Your task to perform on an android device: toggle location history Image 0: 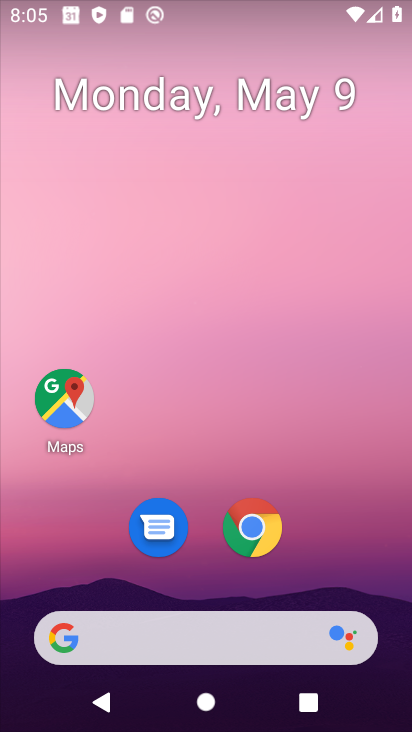
Step 0: drag from (208, 583) to (217, 101)
Your task to perform on an android device: toggle location history Image 1: 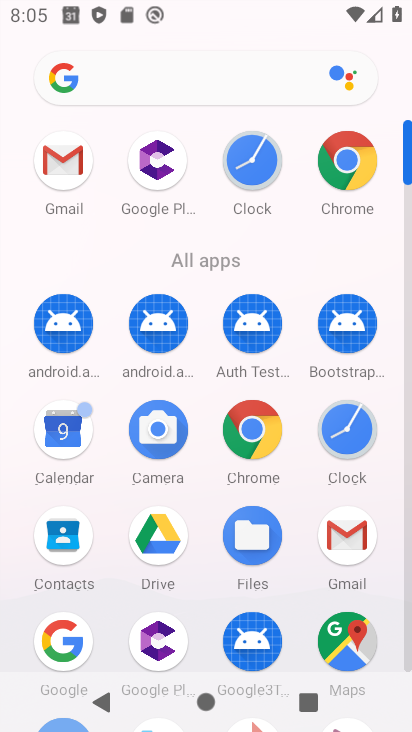
Step 1: drag from (200, 600) to (234, 184)
Your task to perform on an android device: toggle location history Image 2: 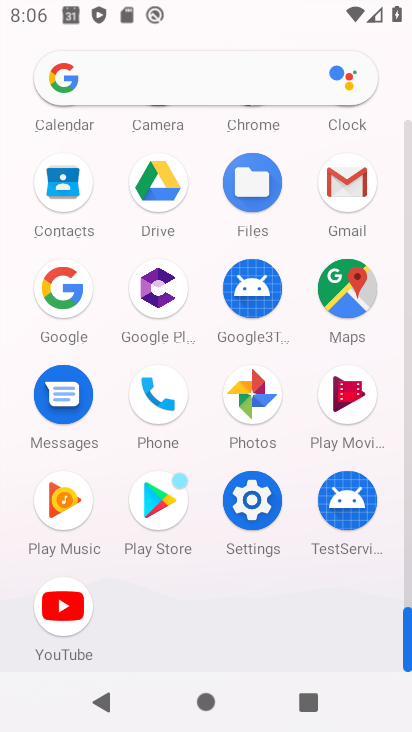
Step 2: click (254, 501)
Your task to perform on an android device: toggle location history Image 3: 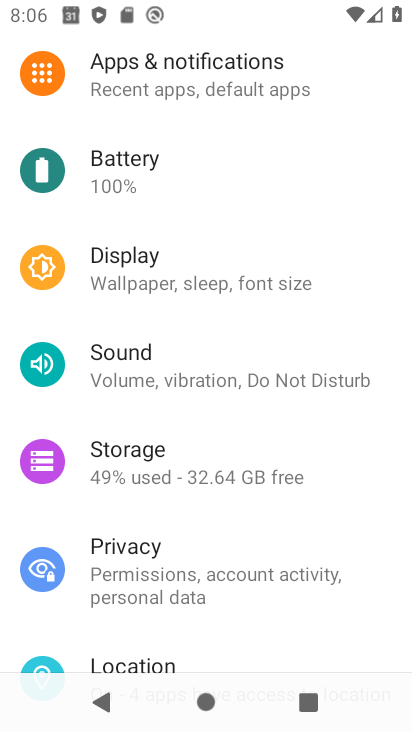
Step 3: click (188, 644)
Your task to perform on an android device: toggle location history Image 4: 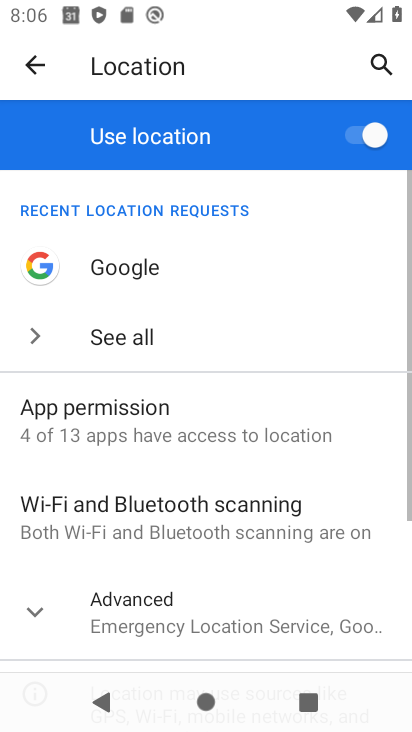
Step 4: click (37, 603)
Your task to perform on an android device: toggle location history Image 5: 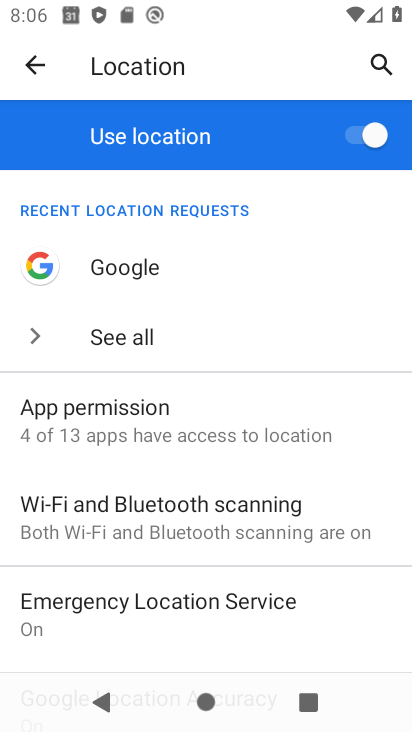
Step 5: drag from (175, 633) to (191, 160)
Your task to perform on an android device: toggle location history Image 6: 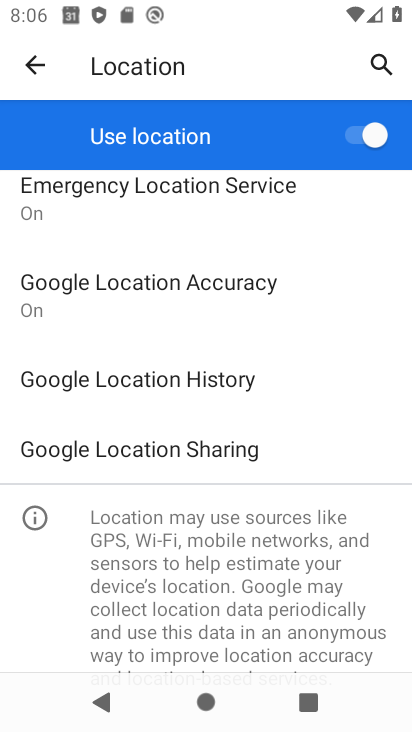
Step 6: click (187, 382)
Your task to perform on an android device: toggle location history Image 7: 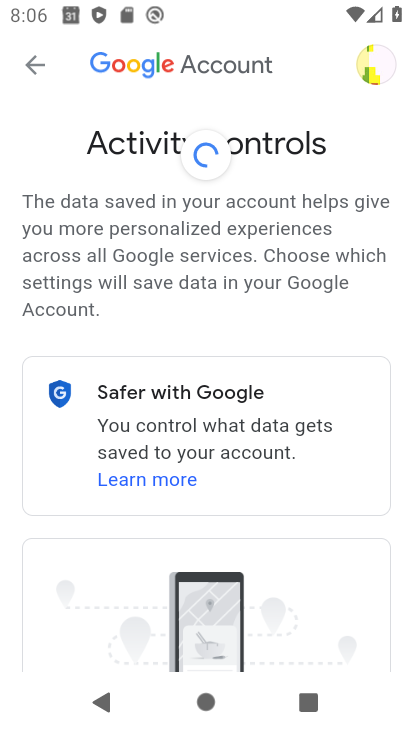
Step 7: drag from (277, 599) to (329, 95)
Your task to perform on an android device: toggle location history Image 8: 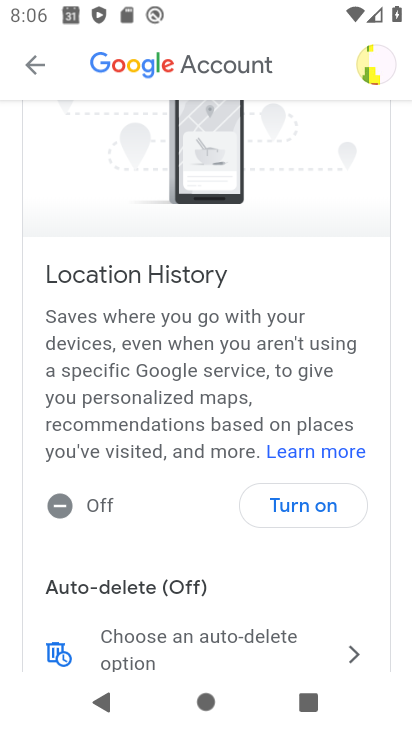
Step 8: click (318, 498)
Your task to perform on an android device: toggle location history Image 9: 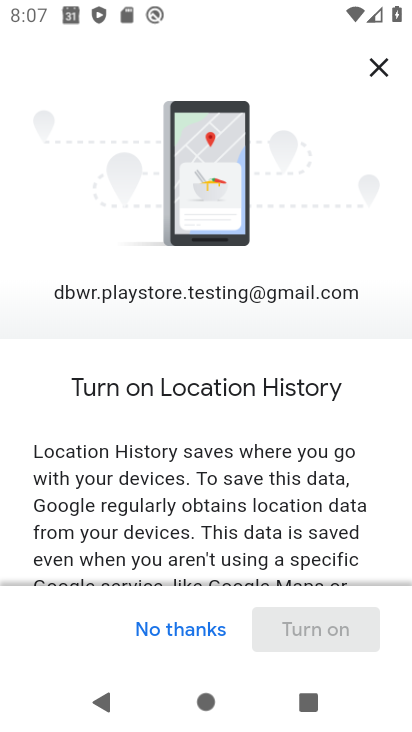
Step 9: drag from (270, 549) to (278, 142)
Your task to perform on an android device: toggle location history Image 10: 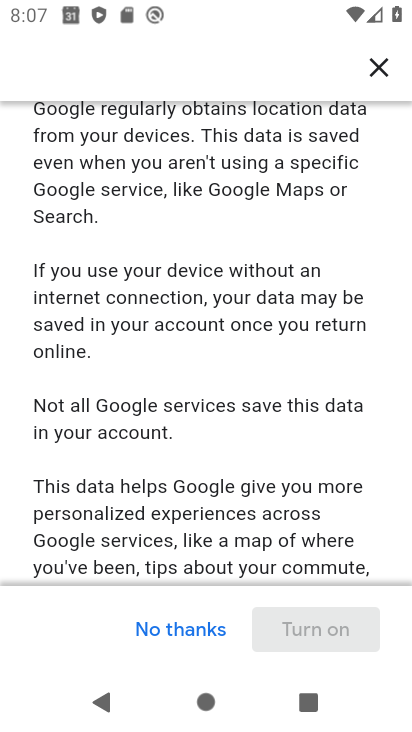
Step 10: drag from (234, 535) to (254, 119)
Your task to perform on an android device: toggle location history Image 11: 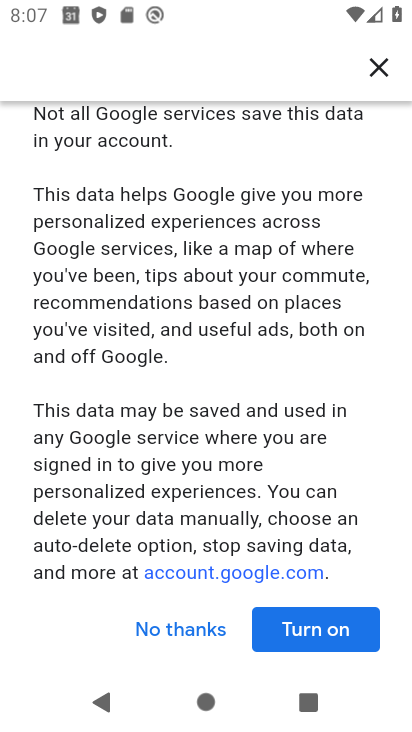
Step 11: click (314, 631)
Your task to perform on an android device: toggle location history Image 12: 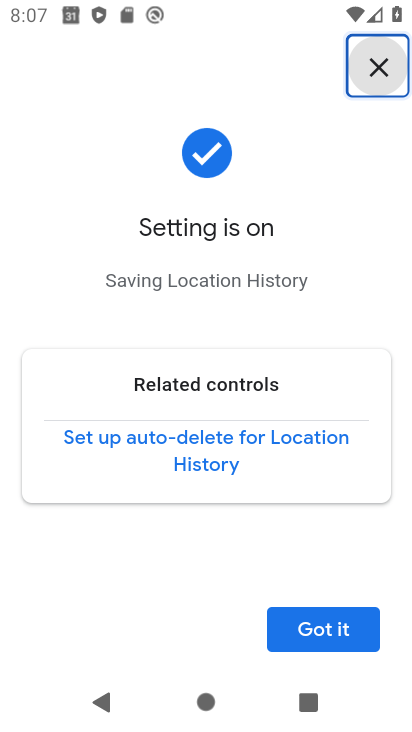
Step 12: click (314, 631)
Your task to perform on an android device: toggle location history Image 13: 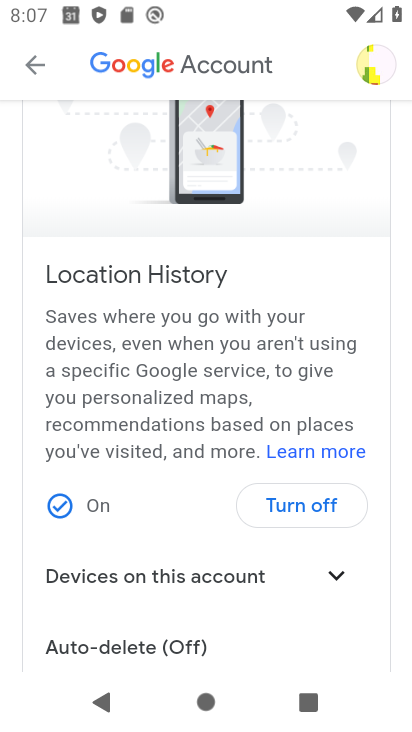
Step 13: task complete